Your task to perform on an android device: open a bookmark in the chrome app Image 0: 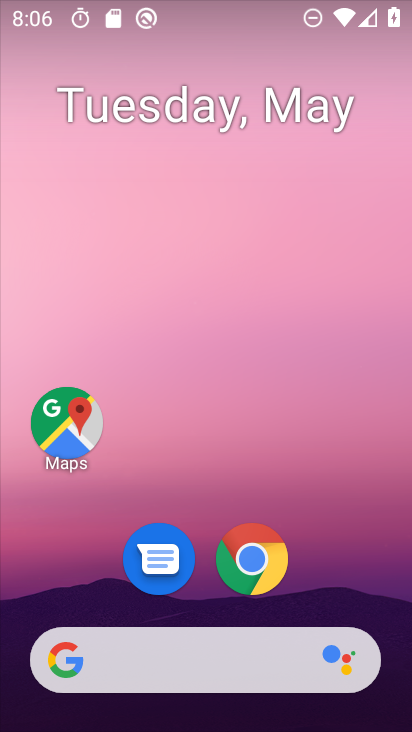
Step 0: drag from (403, 639) to (237, 81)
Your task to perform on an android device: open a bookmark in the chrome app Image 1: 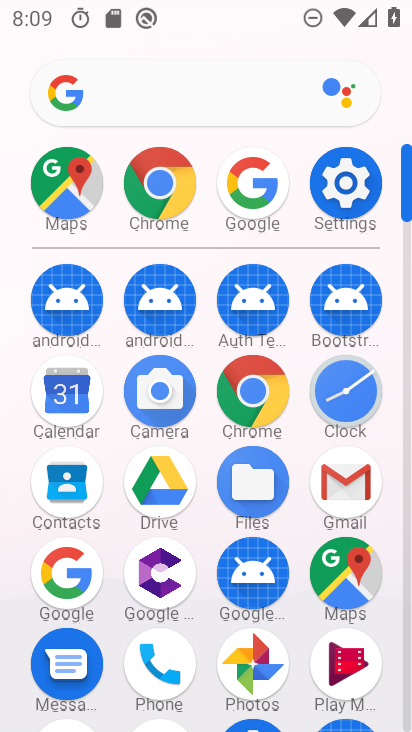
Step 1: click (264, 402)
Your task to perform on an android device: open a bookmark in the chrome app Image 2: 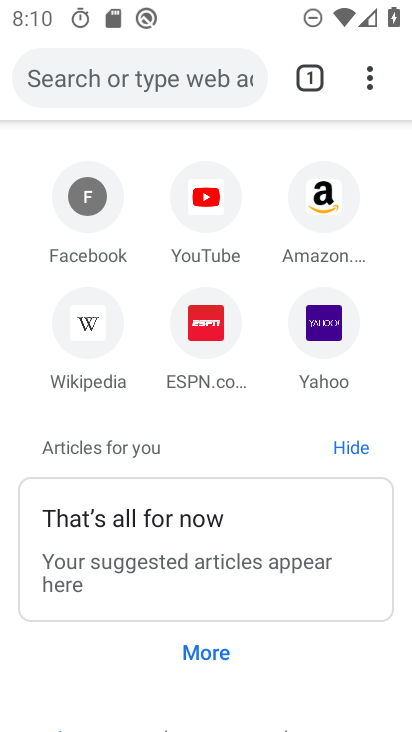
Step 2: click (367, 79)
Your task to perform on an android device: open a bookmark in the chrome app Image 3: 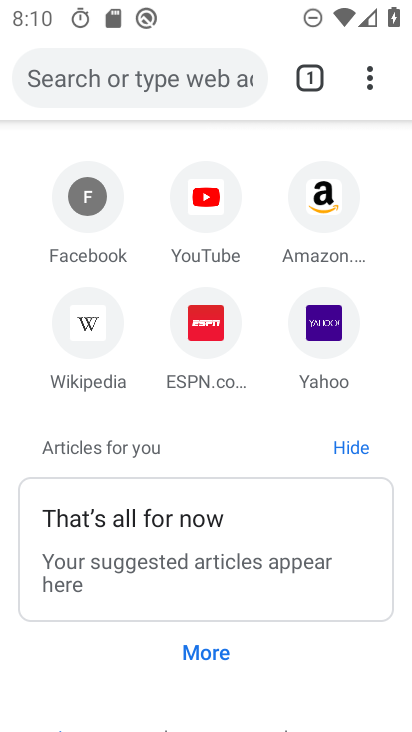
Step 3: click (373, 75)
Your task to perform on an android device: open a bookmark in the chrome app Image 4: 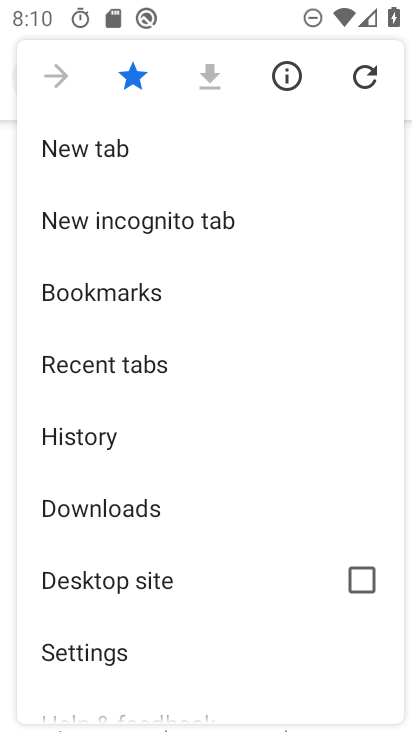
Step 4: click (165, 293)
Your task to perform on an android device: open a bookmark in the chrome app Image 5: 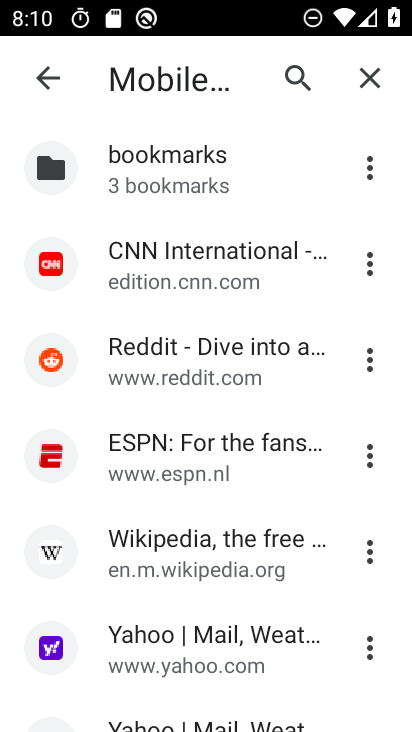
Step 5: task complete